Your task to perform on an android device: Open Google Chrome Image 0: 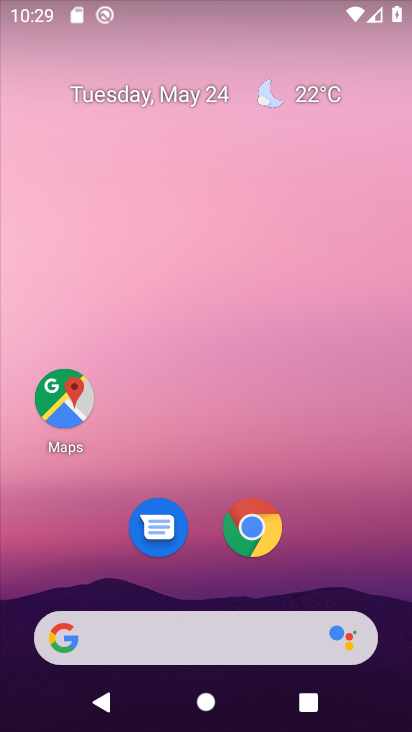
Step 0: press home button
Your task to perform on an android device: Open Google Chrome Image 1: 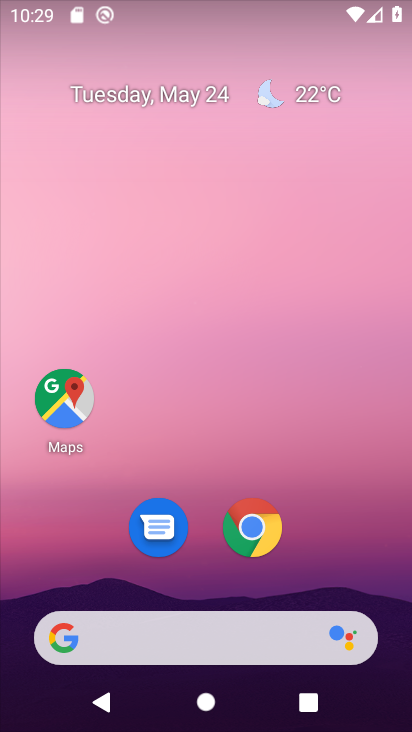
Step 1: click (263, 533)
Your task to perform on an android device: Open Google Chrome Image 2: 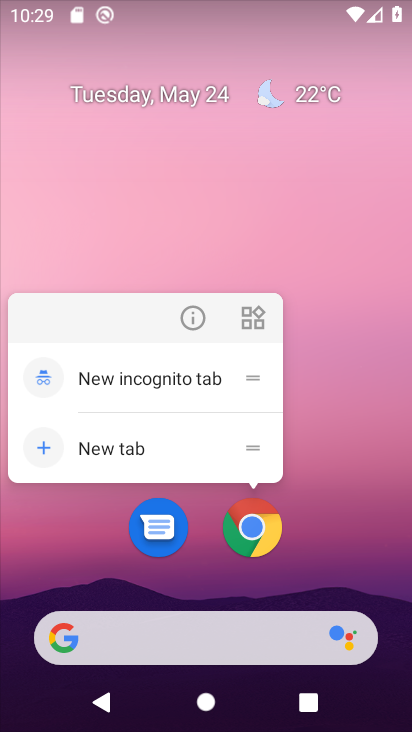
Step 2: click (255, 542)
Your task to perform on an android device: Open Google Chrome Image 3: 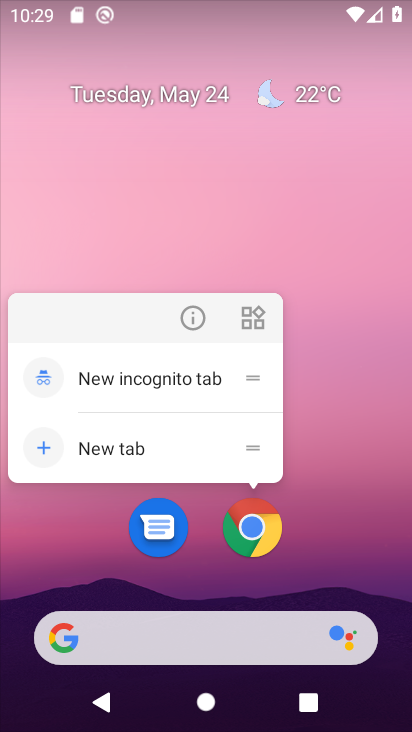
Step 3: click (262, 528)
Your task to perform on an android device: Open Google Chrome Image 4: 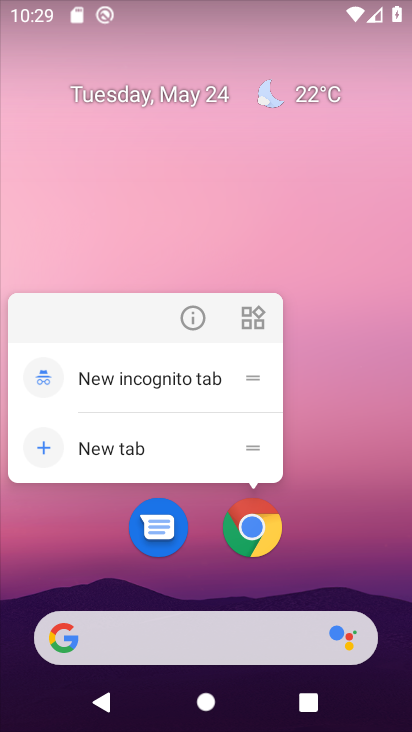
Step 4: click (262, 528)
Your task to perform on an android device: Open Google Chrome Image 5: 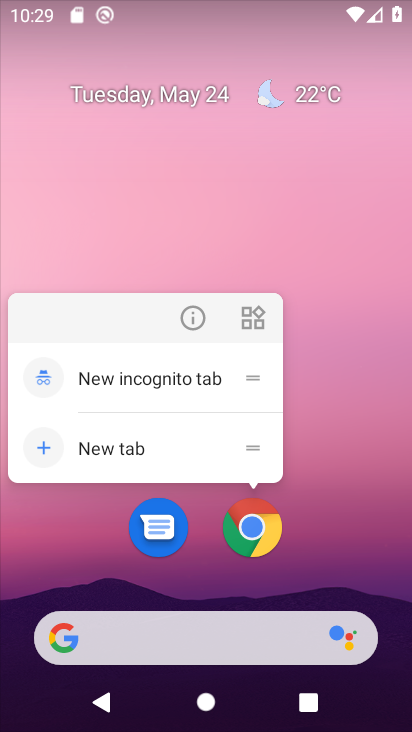
Step 5: click (262, 528)
Your task to perform on an android device: Open Google Chrome Image 6: 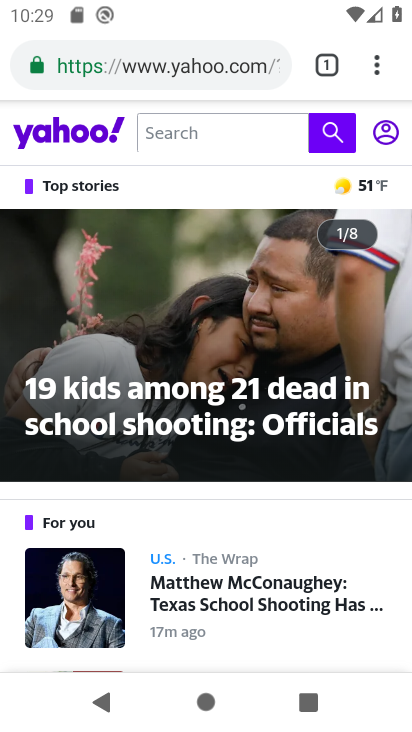
Step 6: task complete